Your task to perform on an android device: toggle data saver in the chrome app Image 0: 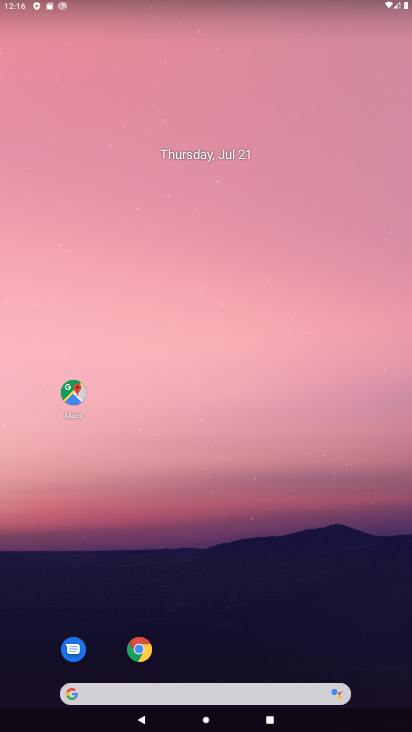
Step 0: click (147, 641)
Your task to perform on an android device: toggle data saver in the chrome app Image 1: 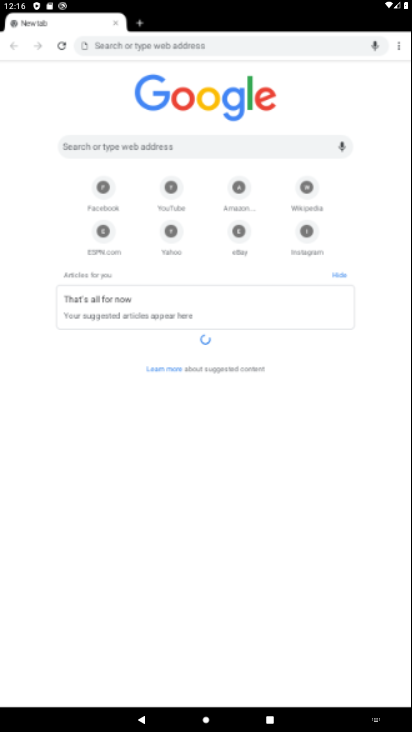
Step 1: click (402, 45)
Your task to perform on an android device: toggle data saver in the chrome app Image 2: 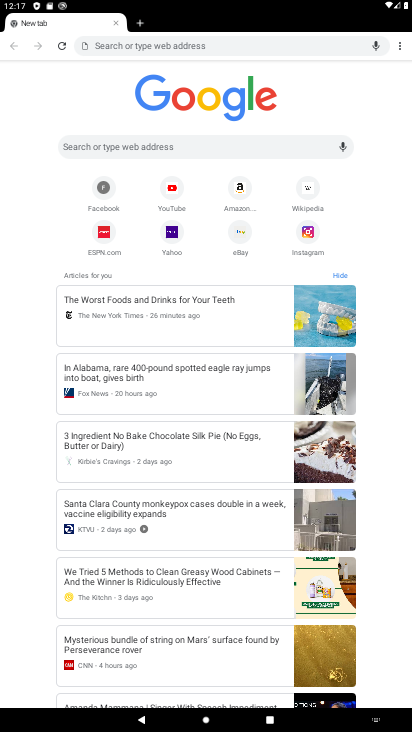
Step 2: click (401, 42)
Your task to perform on an android device: toggle data saver in the chrome app Image 3: 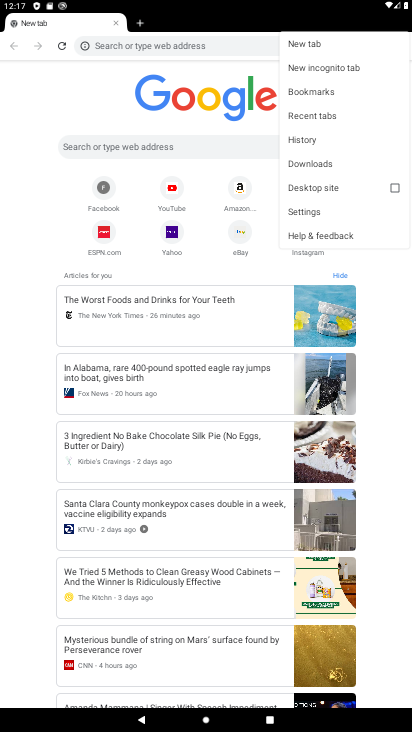
Step 3: click (327, 209)
Your task to perform on an android device: toggle data saver in the chrome app Image 4: 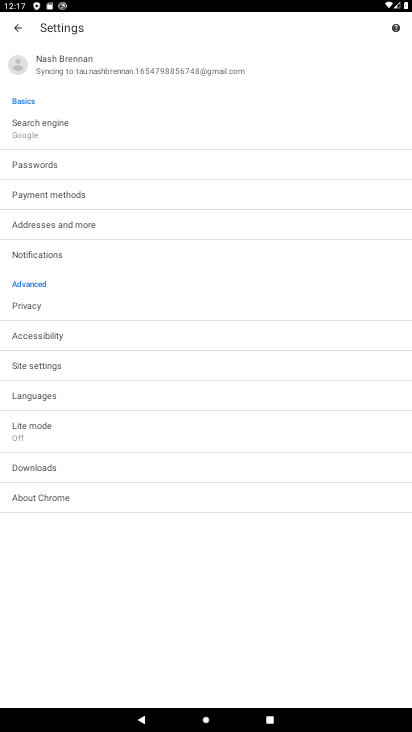
Step 4: click (178, 367)
Your task to perform on an android device: toggle data saver in the chrome app Image 5: 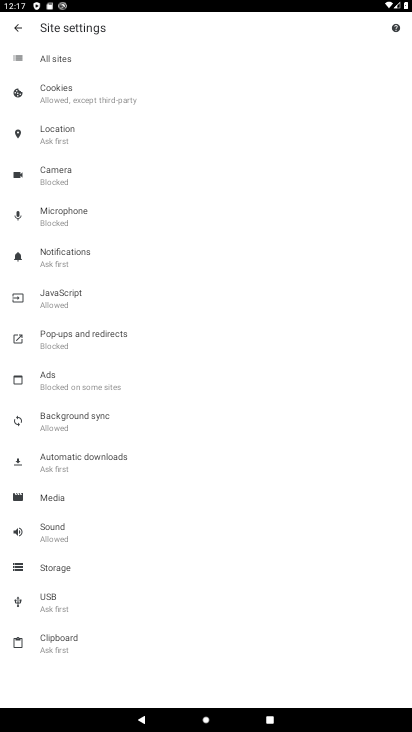
Step 5: task complete